Your task to perform on an android device: refresh tabs in the chrome app Image 0: 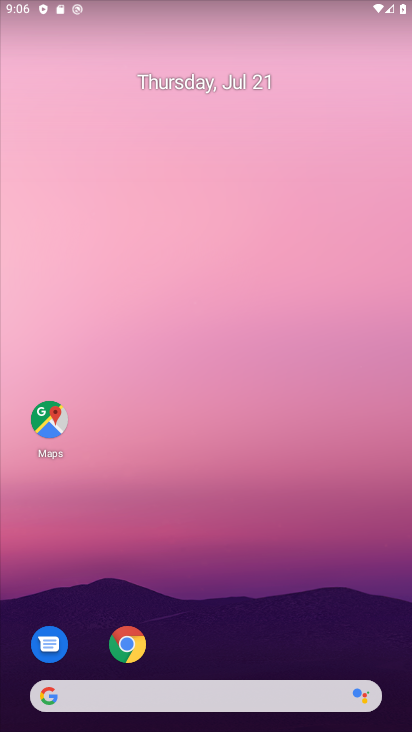
Step 0: drag from (229, 601) to (136, 11)
Your task to perform on an android device: refresh tabs in the chrome app Image 1: 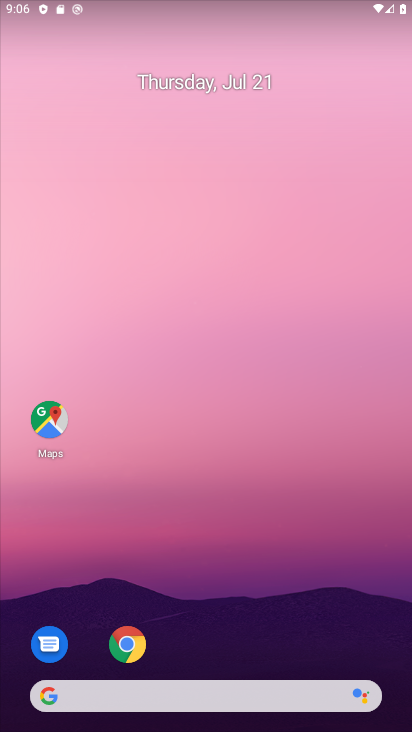
Step 1: drag from (187, 93) to (206, 289)
Your task to perform on an android device: refresh tabs in the chrome app Image 2: 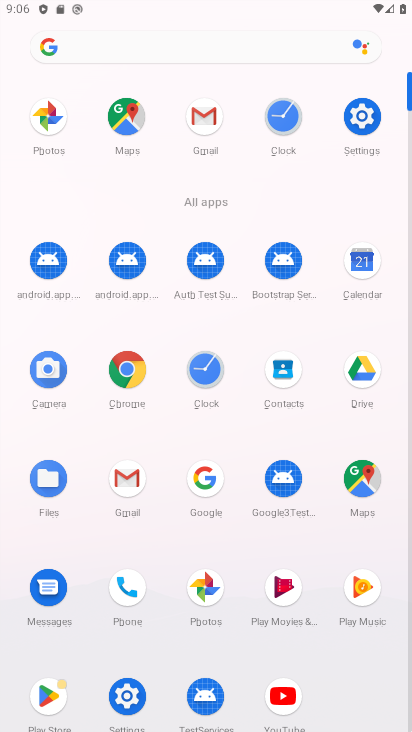
Step 2: click (135, 384)
Your task to perform on an android device: refresh tabs in the chrome app Image 3: 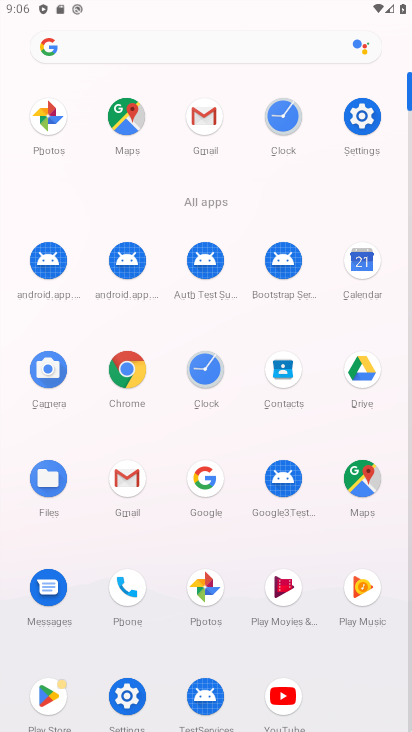
Step 3: click (135, 374)
Your task to perform on an android device: refresh tabs in the chrome app Image 4: 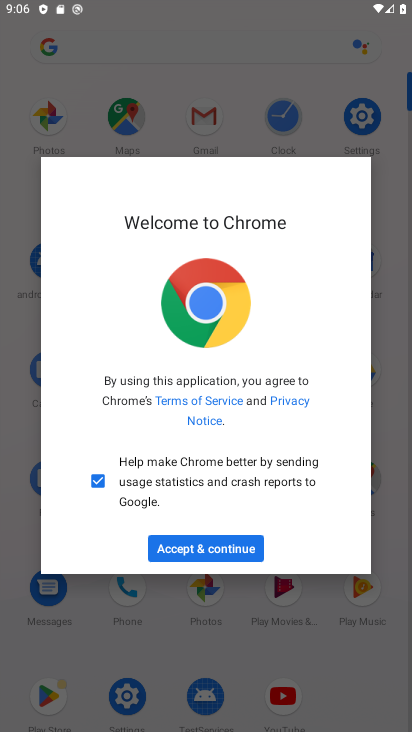
Step 4: click (222, 541)
Your task to perform on an android device: refresh tabs in the chrome app Image 5: 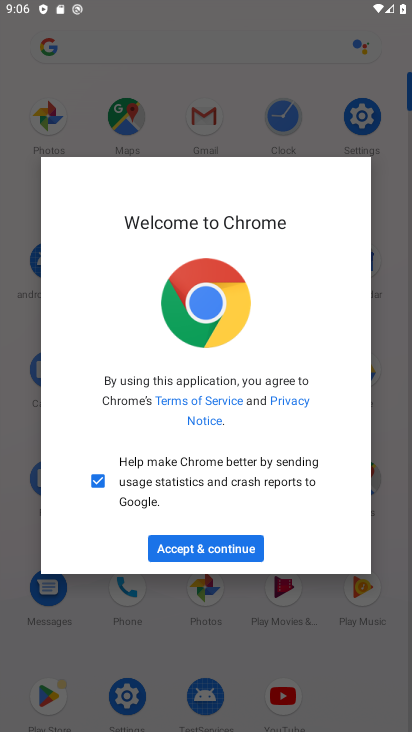
Step 5: click (218, 544)
Your task to perform on an android device: refresh tabs in the chrome app Image 6: 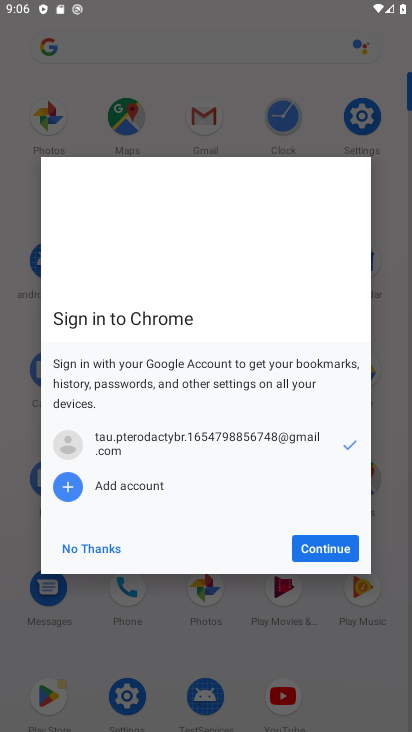
Step 6: click (227, 542)
Your task to perform on an android device: refresh tabs in the chrome app Image 7: 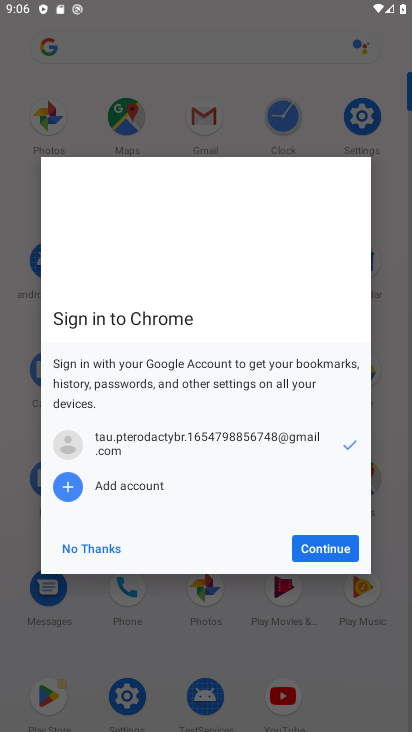
Step 7: click (119, 549)
Your task to perform on an android device: refresh tabs in the chrome app Image 8: 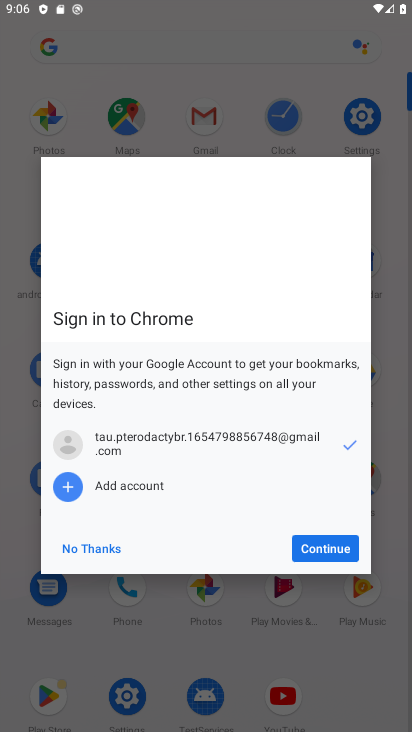
Step 8: click (107, 543)
Your task to perform on an android device: refresh tabs in the chrome app Image 9: 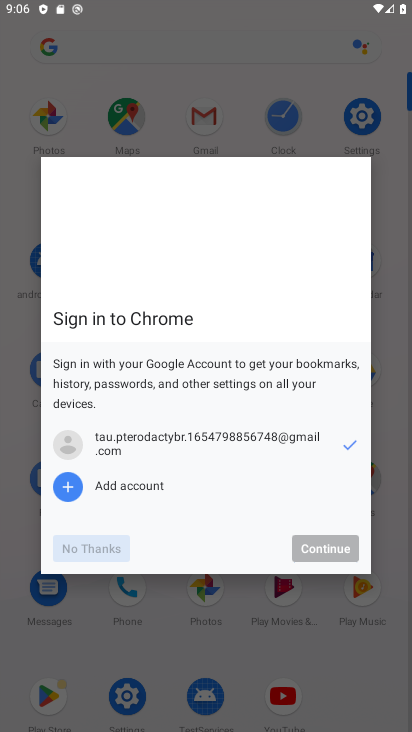
Step 9: click (99, 542)
Your task to perform on an android device: refresh tabs in the chrome app Image 10: 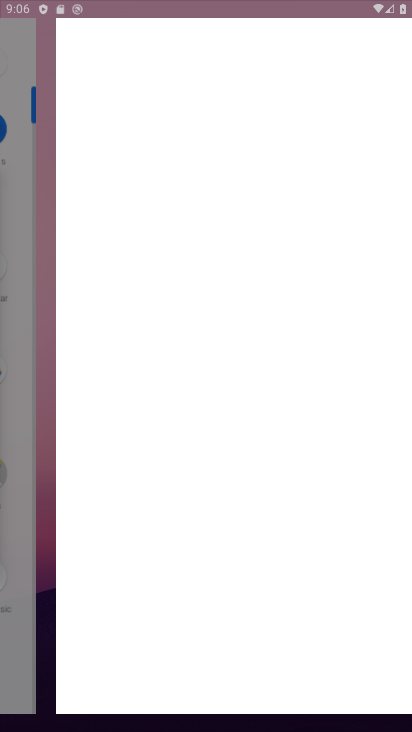
Step 10: click (98, 539)
Your task to perform on an android device: refresh tabs in the chrome app Image 11: 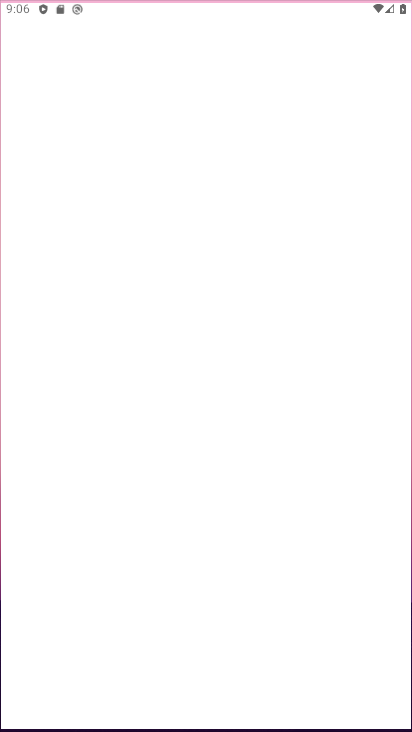
Step 11: click (98, 538)
Your task to perform on an android device: refresh tabs in the chrome app Image 12: 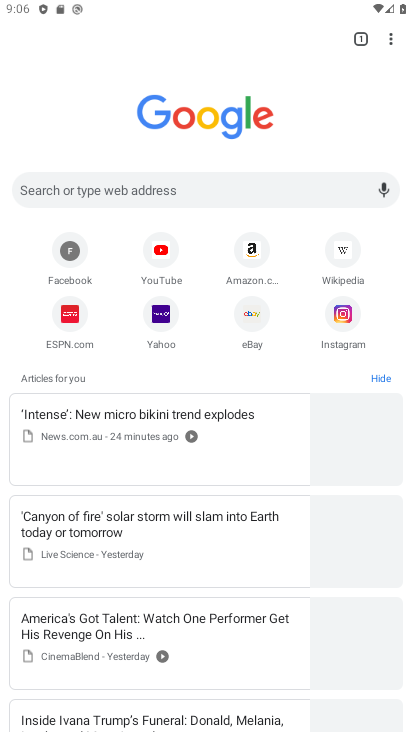
Step 12: click (391, 39)
Your task to perform on an android device: refresh tabs in the chrome app Image 13: 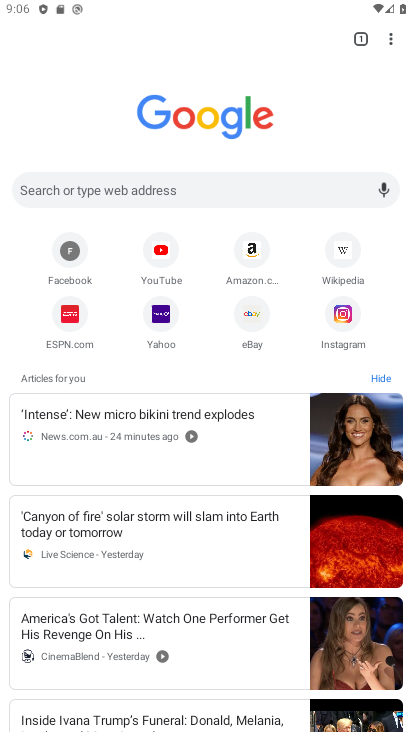
Step 13: task complete